Your task to perform on an android device: Go to battery settings Image 0: 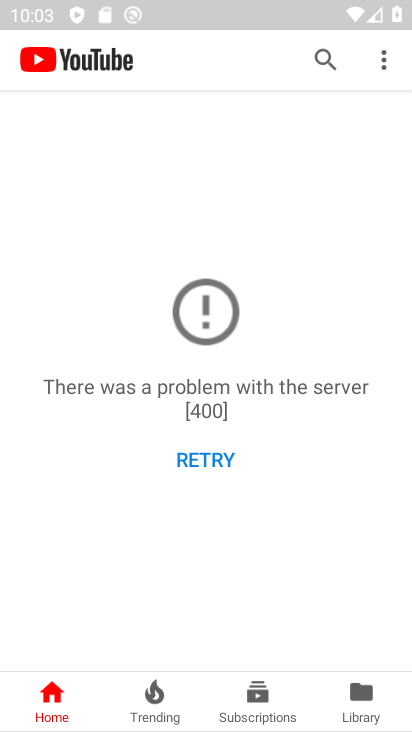
Step 0: press back button
Your task to perform on an android device: Go to battery settings Image 1: 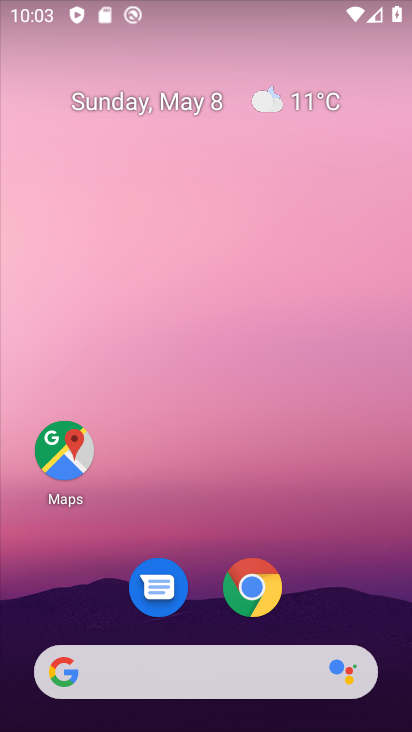
Step 1: drag from (172, 676) to (156, 217)
Your task to perform on an android device: Go to battery settings Image 2: 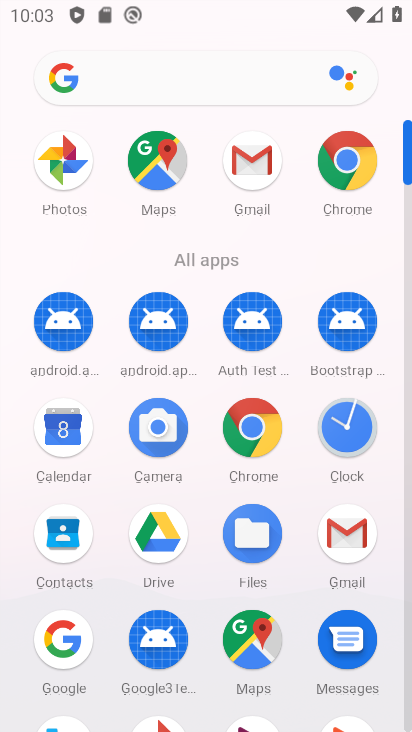
Step 2: drag from (220, 629) to (194, 55)
Your task to perform on an android device: Go to battery settings Image 3: 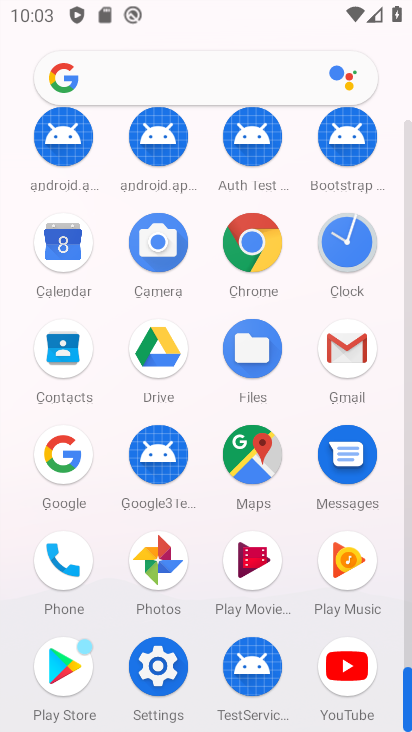
Step 3: click (169, 672)
Your task to perform on an android device: Go to battery settings Image 4: 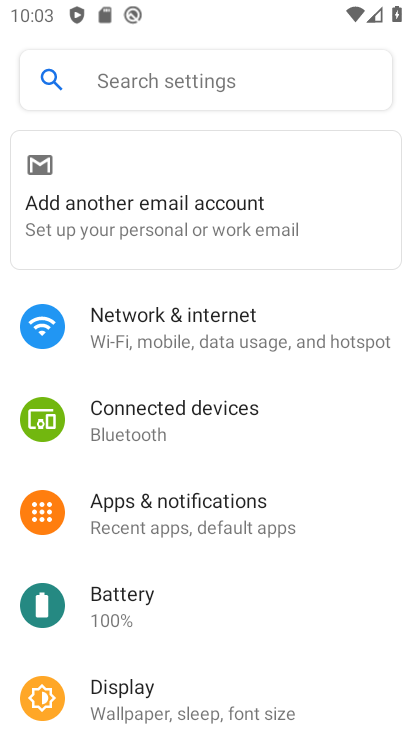
Step 4: click (117, 621)
Your task to perform on an android device: Go to battery settings Image 5: 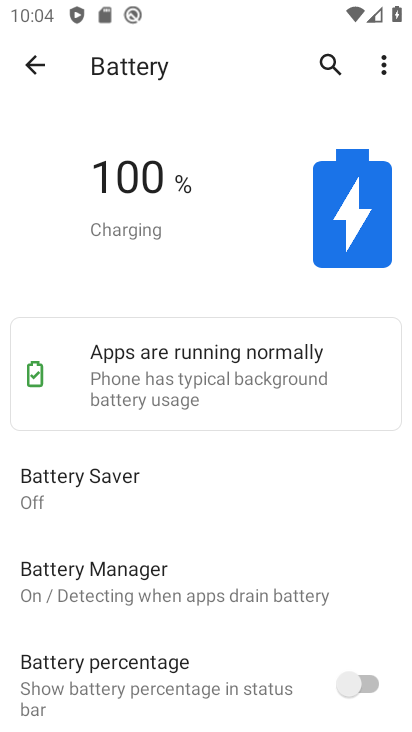
Step 5: task complete